Your task to perform on an android device: find photos in the google photos app Image 0: 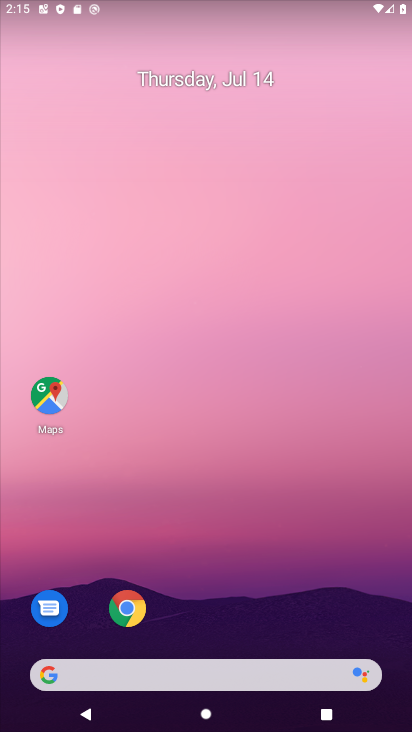
Step 0: press home button
Your task to perform on an android device: find photos in the google photos app Image 1: 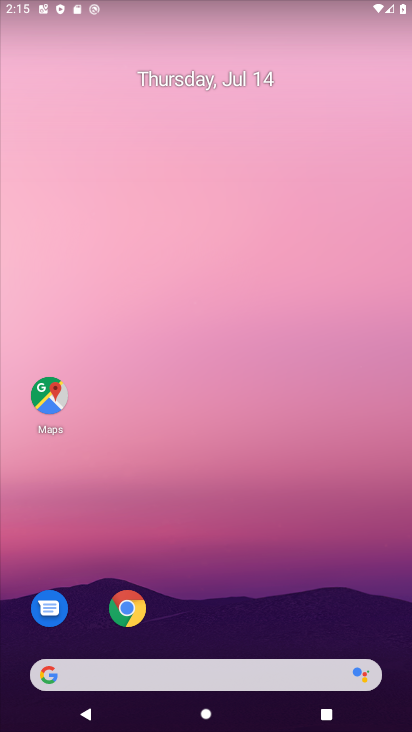
Step 1: drag from (56, 537) to (373, 119)
Your task to perform on an android device: find photos in the google photos app Image 2: 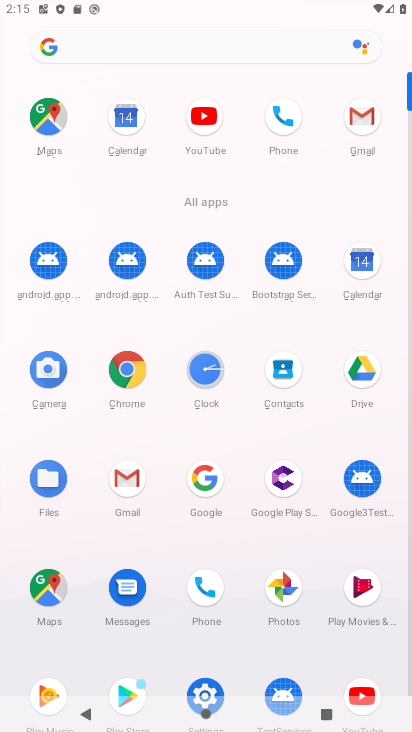
Step 2: click (283, 597)
Your task to perform on an android device: find photos in the google photos app Image 3: 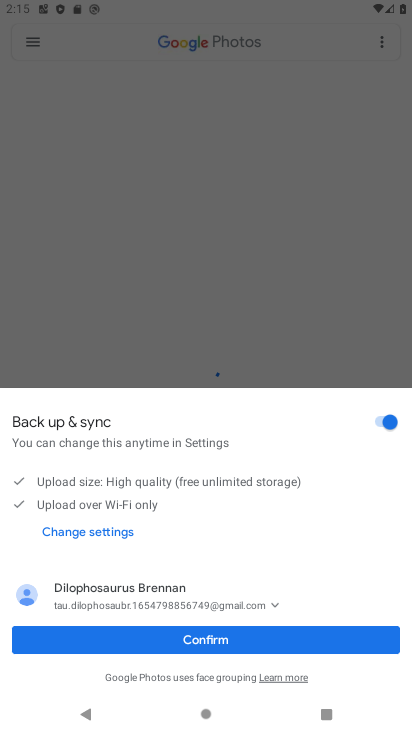
Step 3: task complete